Your task to perform on an android device: Is it going to rain tomorrow? Image 0: 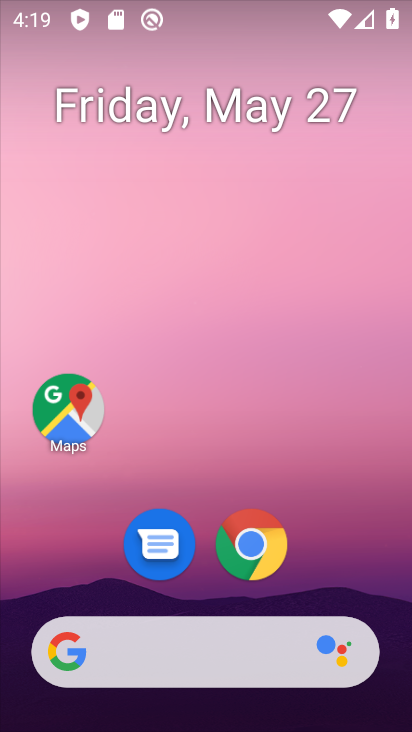
Step 0: drag from (2, 308) to (358, 279)
Your task to perform on an android device: Is it going to rain tomorrow? Image 1: 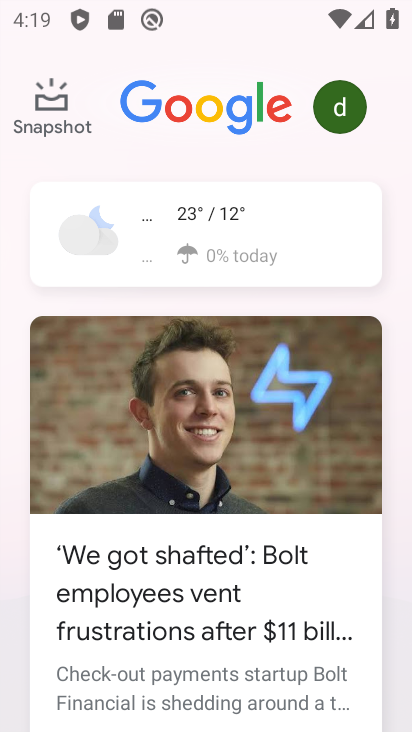
Step 1: click (289, 282)
Your task to perform on an android device: Is it going to rain tomorrow? Image 2: 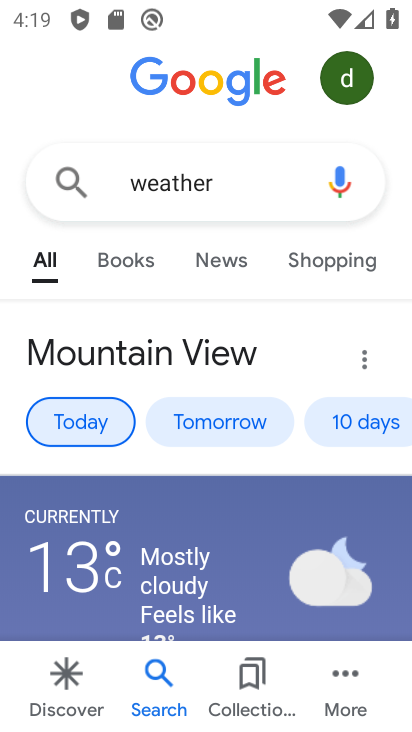
Step 2: click (256, 416)
Your task to perform on an android device: Is it going to rain tomorrow? Image 3: 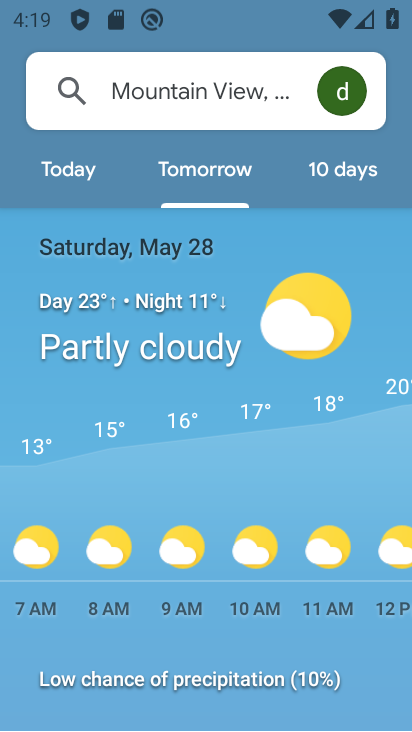
Step 3: task complete